Your task to perform on an android device: move an email to a new category in the gmail app Image 0: 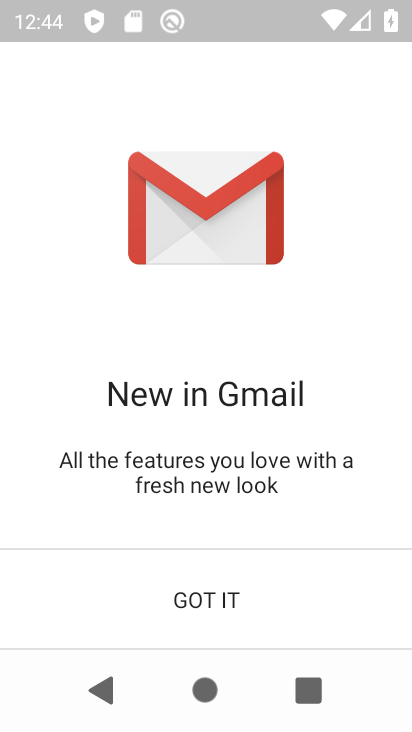
Step 0: press home button
Your task to perform on an android device: move an email to a new category in the gmail app Image 1: 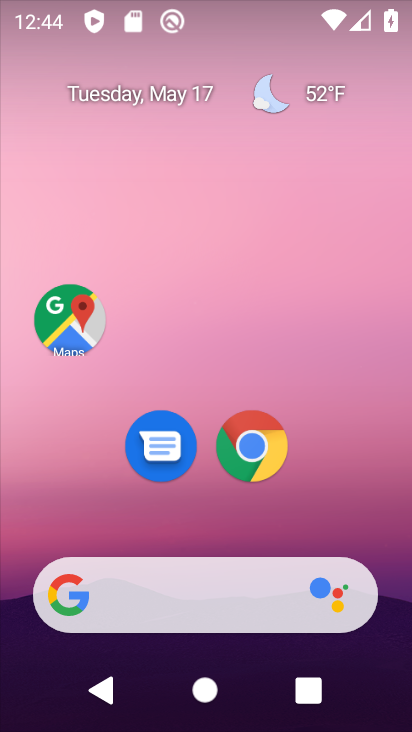
Step 1: drag from (348, 452) to (326, 130)
Your task to perform on an android device: move an email to a new category in the gmail app Image 2: 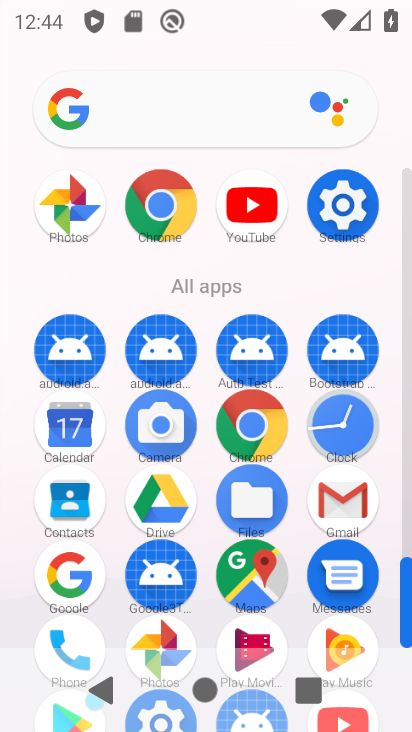
Step 2: click (345, 491)
Your task to perform on an android device: move an email to a new category in the gmail app Image 3: 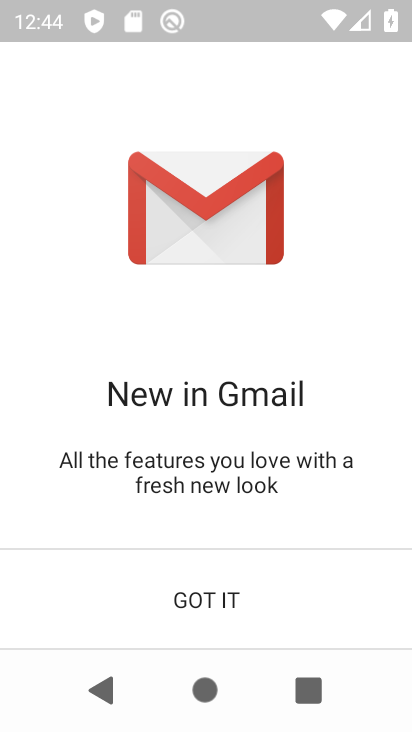
Step 3: click (123, 554)
Your task to perform on an android device: move an email to a new category in the gmail app Image 4: 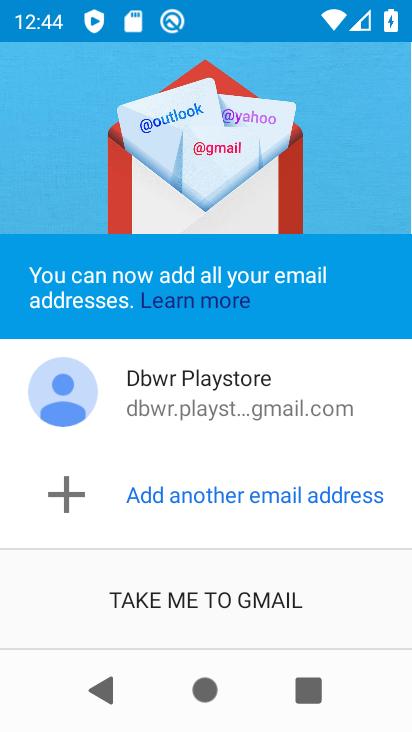
Step 4: click (162, 584)
Your task to perform on an android device: move an email to a new category in the gmail app Image 5: 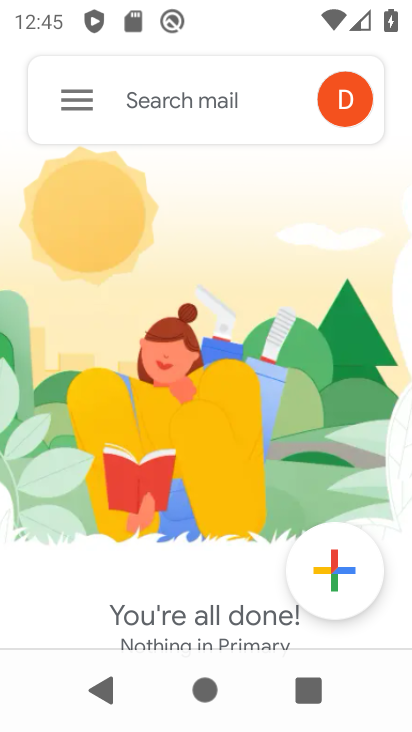
Step 5: click (72, 123)
Your task to perform on an android device: move an email to a new category in the gmail app Image 6: 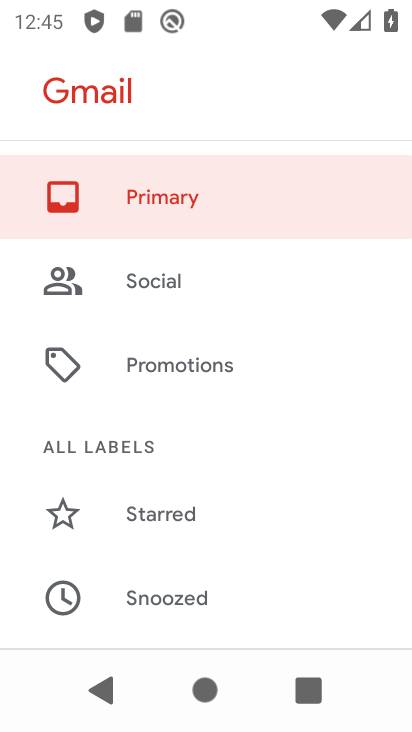
Step 6: drag from (209, 519) to (205, 147)
Your task to perform on an android device: move an email to a new category in the gmail app Image 7: 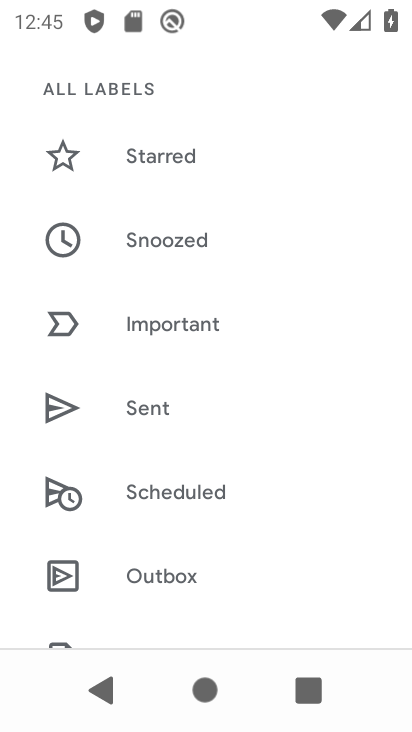
Step 7: drag from (263, 621) to (222, 404)
Your task to perform on an android device: move an email to a new category in the gmail app Image 8: 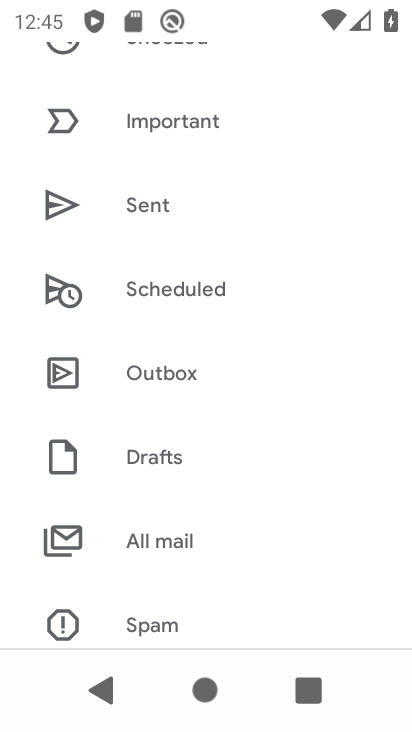
Step 8: drag from (226, 580) to (195, 360)
Your task to perform on an android device: move an email to a new category in the gmail app Image 9: 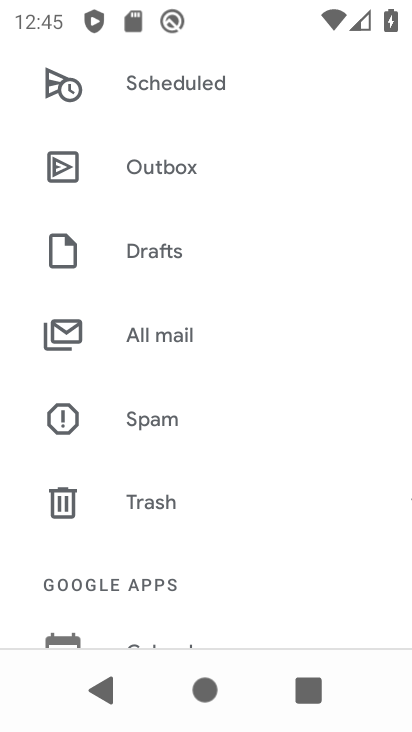
Step 9: drag from (220, 571) to (203, 432)
Your task to perform on an android device: move an email to a new category in the gmail app Image 10: 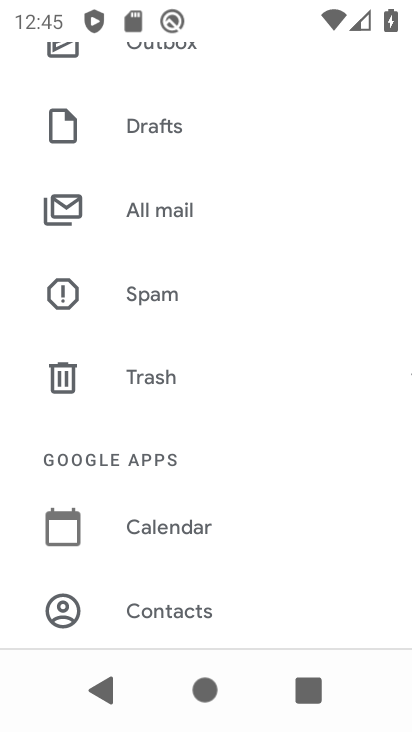
Step 10: click (170, 215)
Your task to perform on an android device: move an email to a new category in the gmail app Image 11: 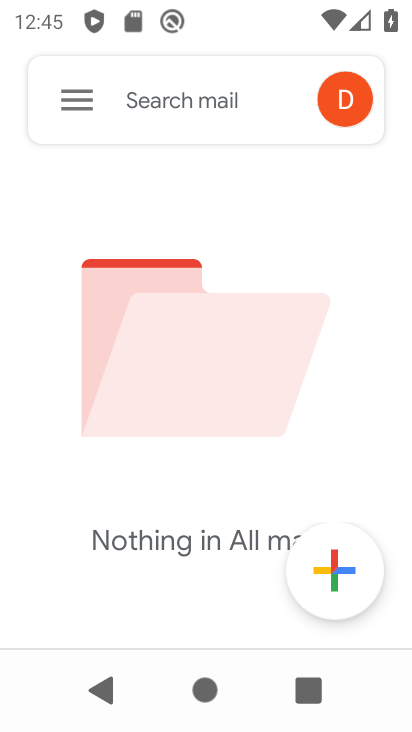
Step 11: task complete